Your task to perform on an android device: turn off javascript in the chrome app Image 0: 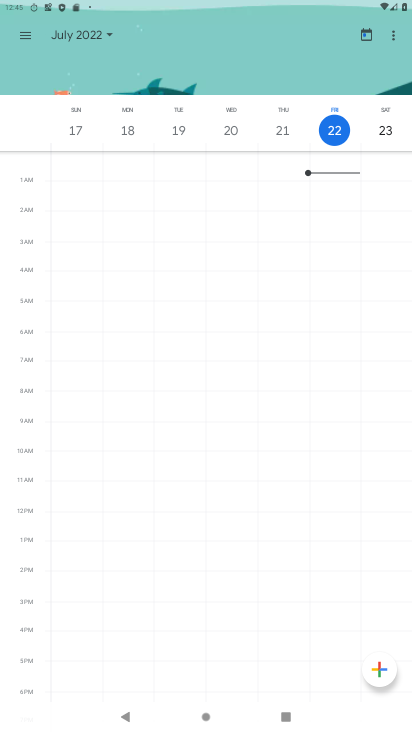
Step 0: press home button
Your task to perform on an android device: turn off javascript in the chrome app Image 1: 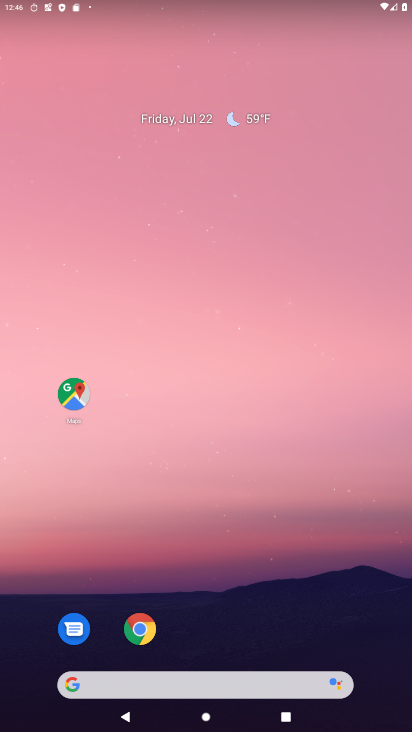
Step 1: drag from (242, 673) to (244, 69)
Your task to perform on an android device: turn off javascript in the chrome app Image 2: 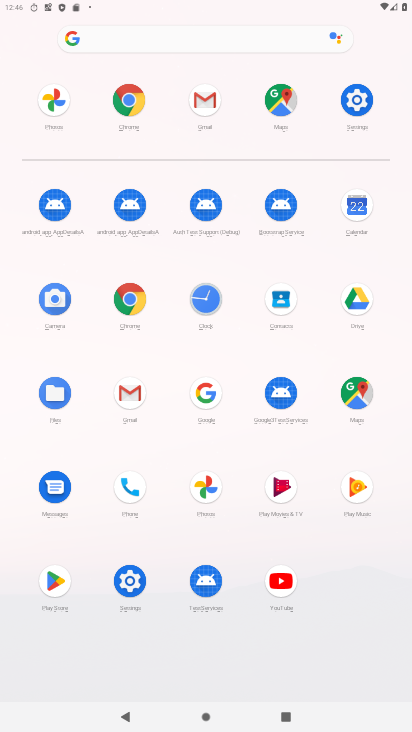
Step 2: click (130, 288)
Your task to perform on an android device: turn off javascript in the chrome app Image 3: 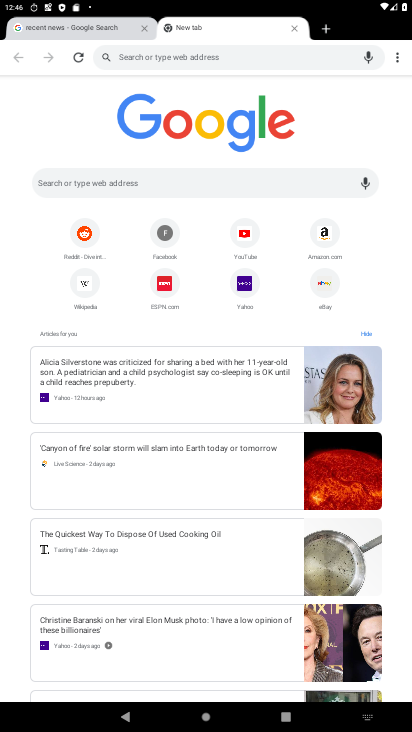
Step 3: drag from (398, 55) to (289, 267)
Your task to perform on an android device: turn off javascript in the chrome app Image 4: 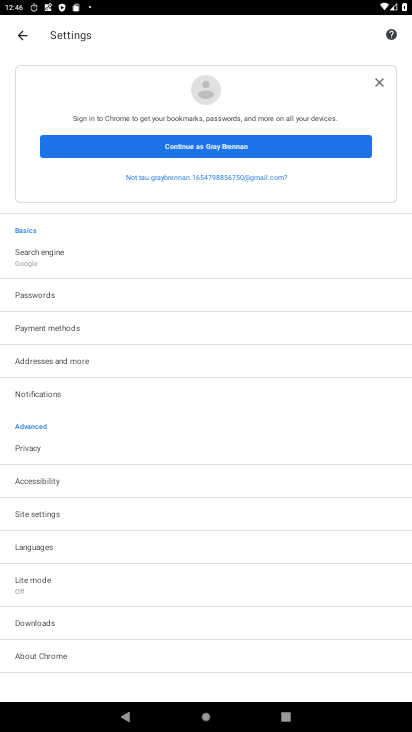
Step 4: click (42, 522)
Your task to perform on an android device: turn off javascript in the chrome app Image 5: 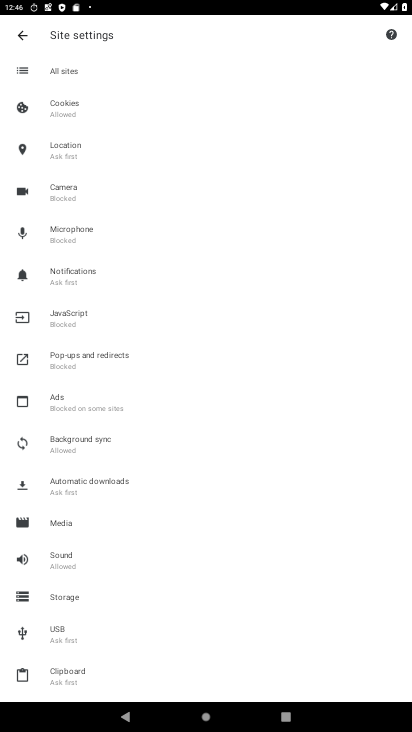
Step 5: click (105, 325)
Your task to perform on an android device: turn off javascript in the chrome app Image 6: 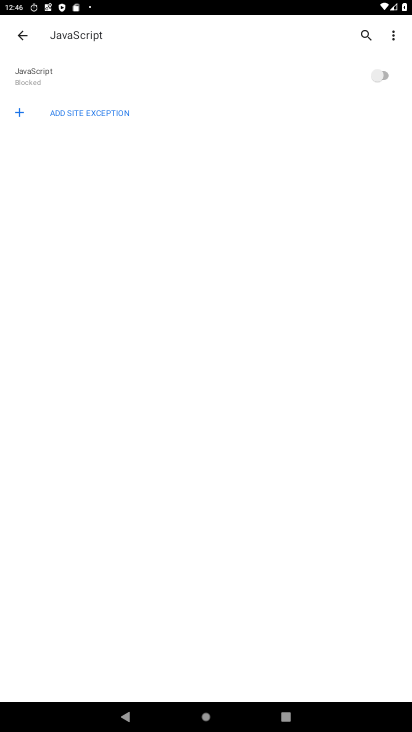
Step 6: task complete